Your task to perform on an android device: change the clock display to show seconds Image 0: 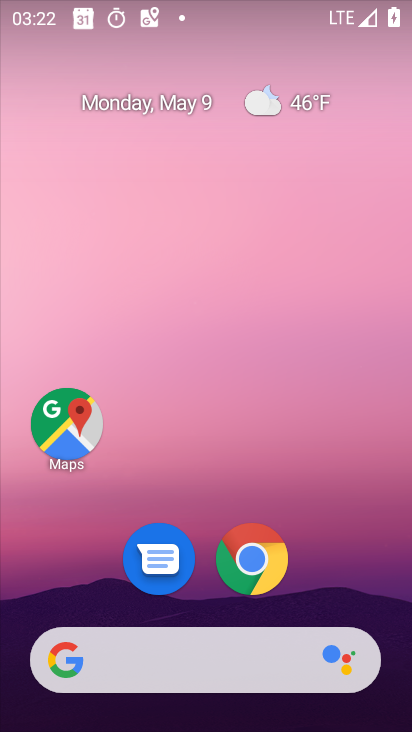
Step 0: drag from (335, 567) to (337, 54)
Your task to perform on an android device: change the clock display to show seconds Image 1: 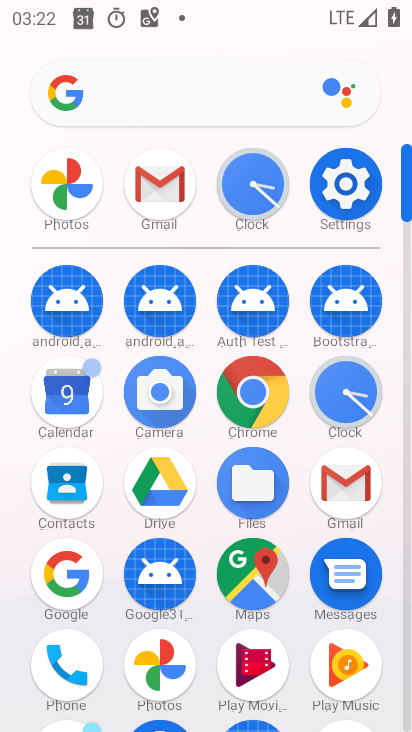
Step 1: click (338, 390)
Your task to perform on an android device: change the clock display to show seconds Image 2: 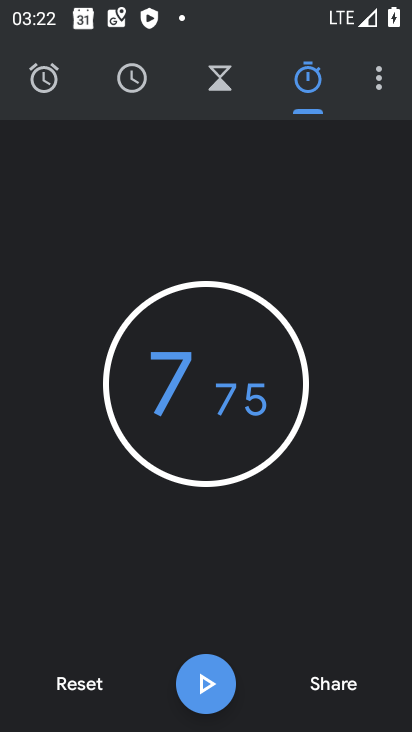
Step 2: click (381, 87)
Your task to perform on an android device: change the clock display to show seconds Image 3: 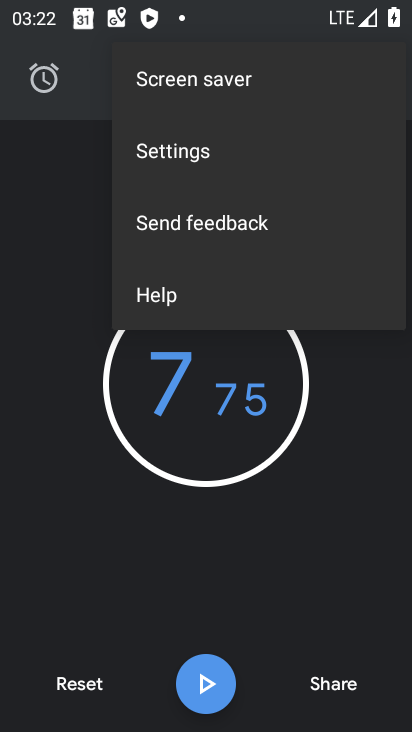
Step 3: click (169, 156)
Your task to perform on an android device: change the clock display to show seconds Image 4: 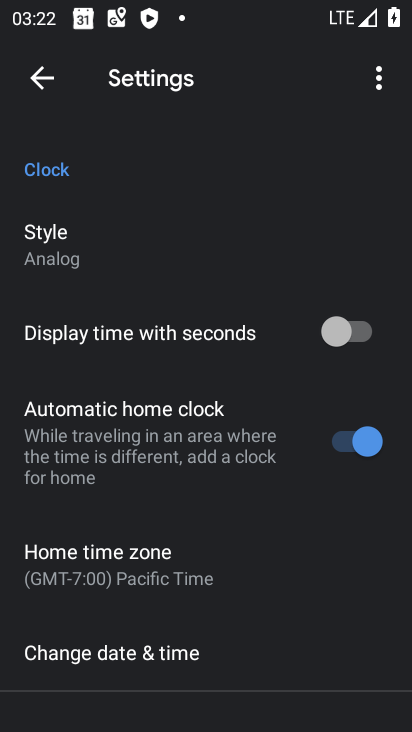
Step 4: click (374, 330)
Your task to perform on an android device: change the clock display to show seconds Image 5: 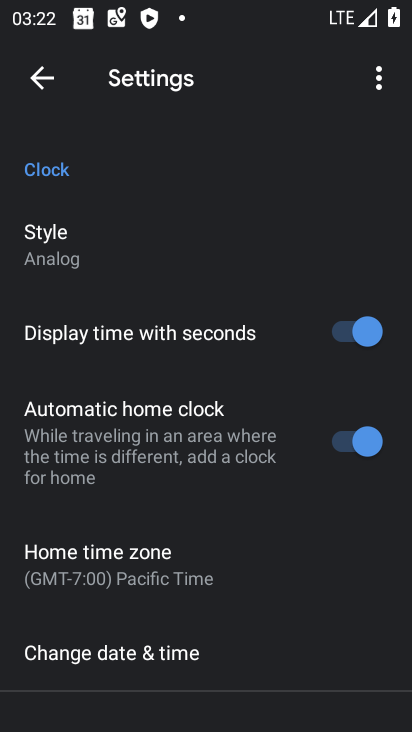
Step 5: task complete